Your task to perform on an android device: Open internet settings Image 0: 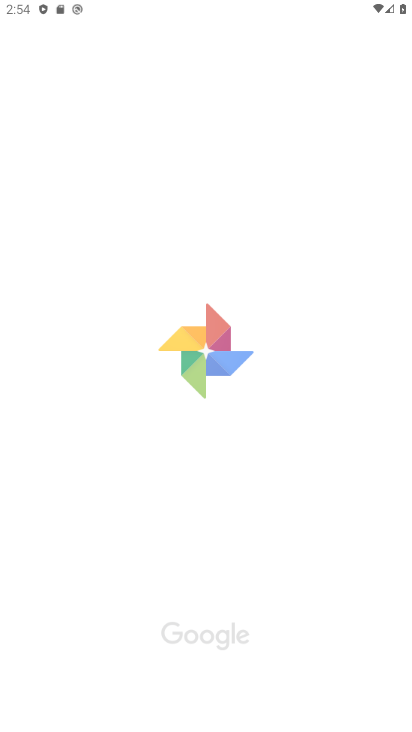
Step 0: drag from (247, 620) to (216, 216)
Your task to perform on an android device: Open internet settings Image 1: 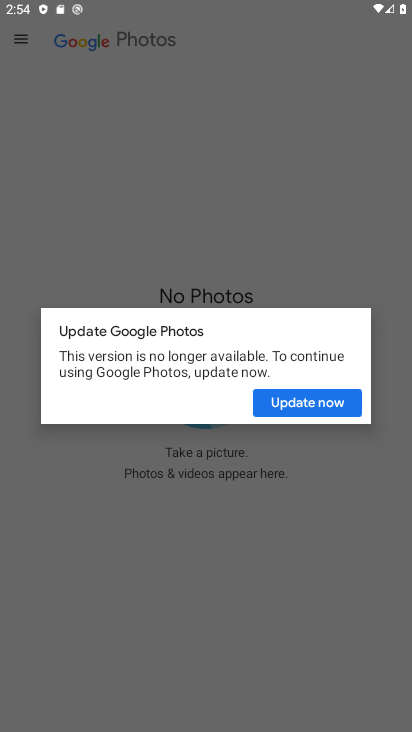
Step 1: press home button
Your task to perform on an android device: Open internet settings Image 2: 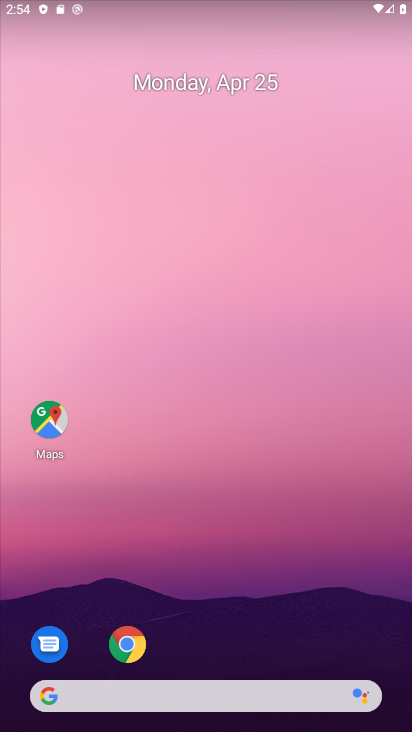
Step 2: drag from (215, 553) to (195, 144)
Your task to perform on an android device: Open internet settings Image 3: 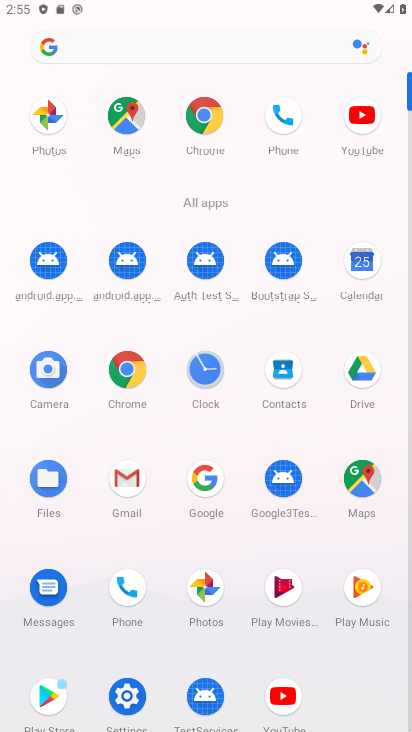
Step 3: click (127, 689)
Your task to perform on an android device: Open internet settings Image 4: 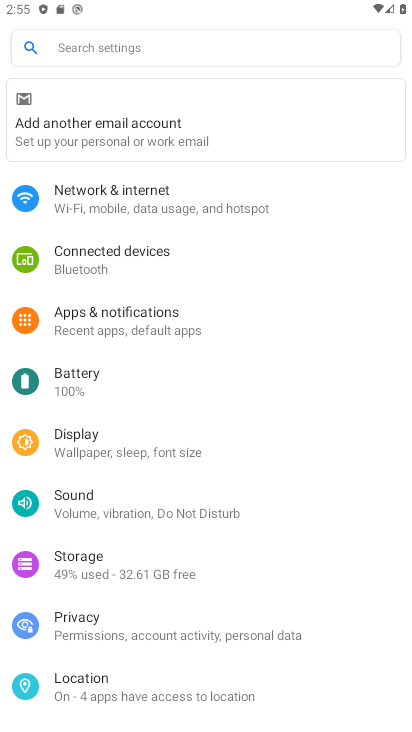
Step 4: click (359, 200)
Your task to perform on an android device: Open internet settings Image 5: 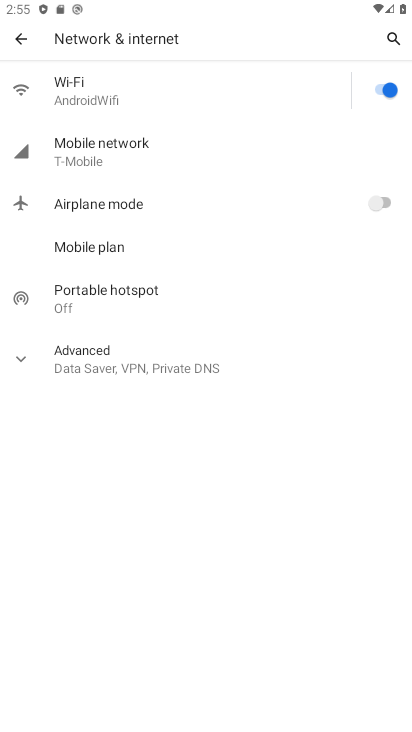
Step 5: task complete